Your task to perform on an android device: turn pop-ups off in chrome Image 0: 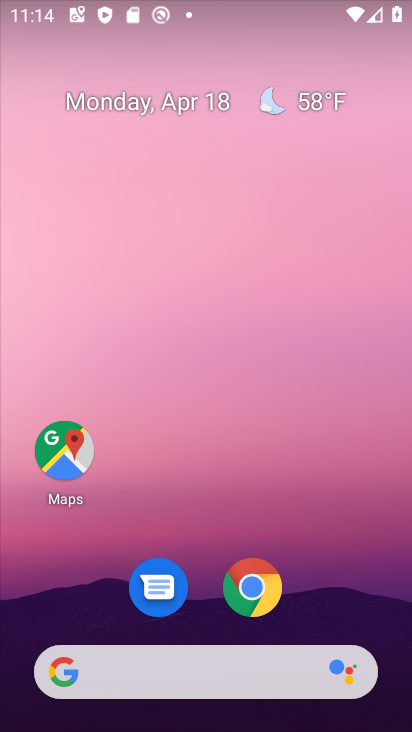
Step 0: click (259, 596)
Your task to perform on an android device: turn pop-ups off in chrome Image 1: 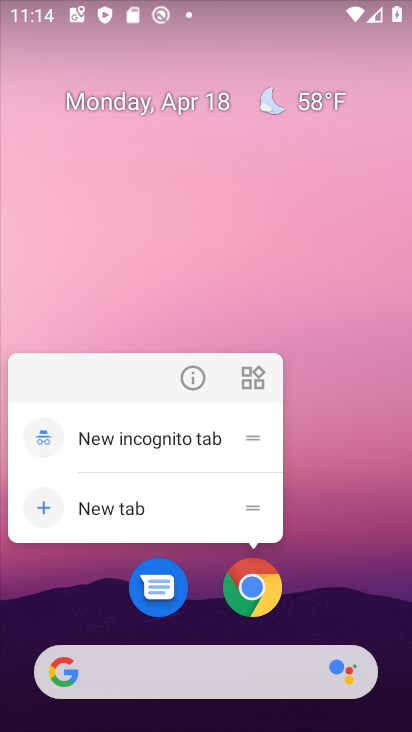
Step 1: click (271, 601)
Your task to perform on an android device: turn pop-ups off in chrome Image 2: 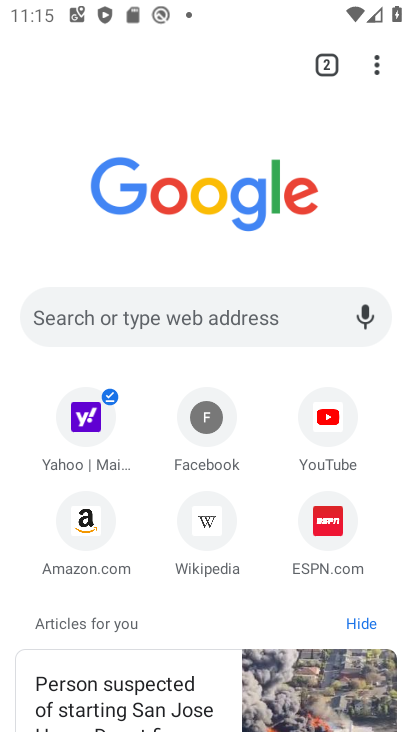
Step 2: click (380, 71)
Your task to perform on an android device: turn pop-ups off in chrome Image 3: 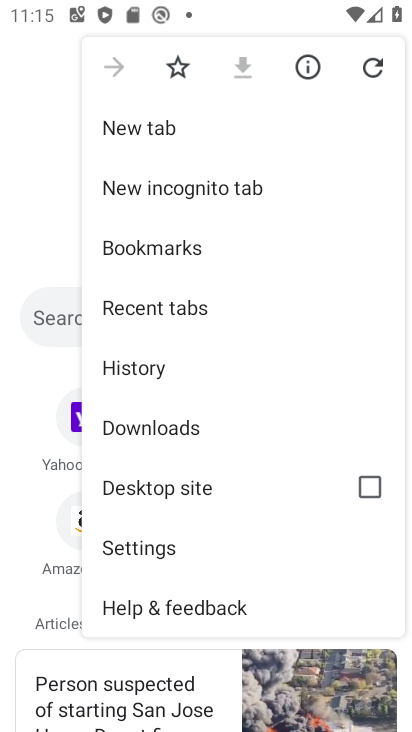
Step 3: click (159, 553)
Your task to perform on an android device: turn pop-ups off in chrome Image 4: 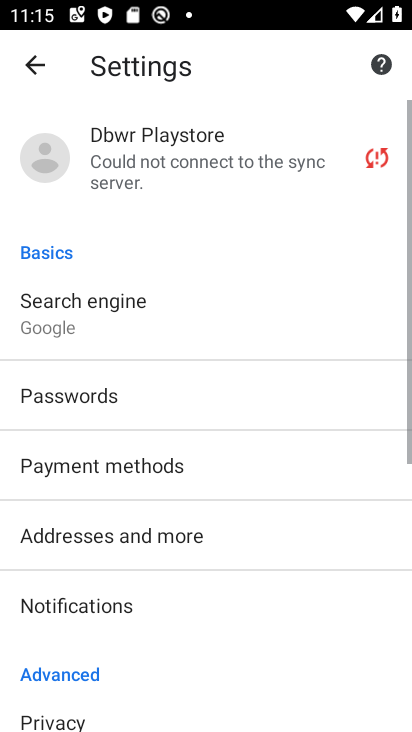
Step 4: drag from (179, 643) to (289, 346)
Your task to perform on an android device: turn pop-ups off in chrome Image 5: 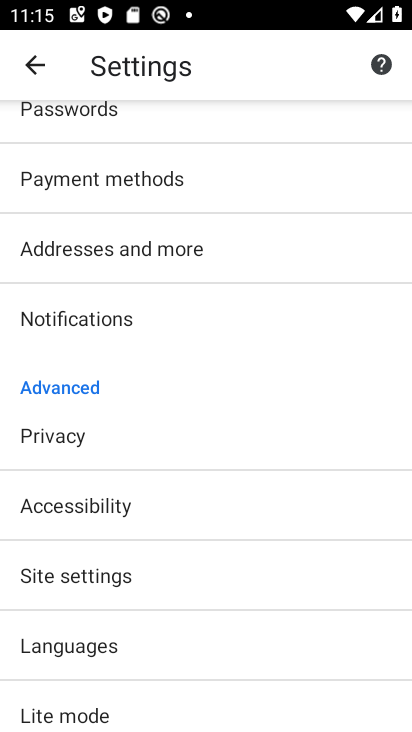
Step 5: click (172, 575)
Your task to perform on an android device: turn pop-ups off in chrome Image 6: 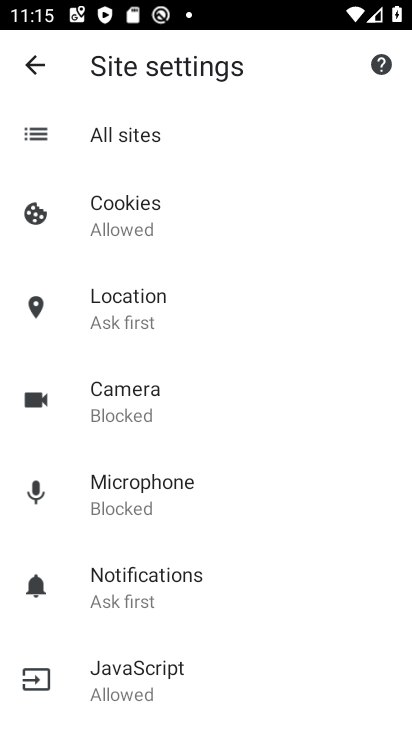
Step 6: drag from (167, 654) to (248, 425)
Your task to perform on an android device: turn pop-ups off in chrome Image 7: 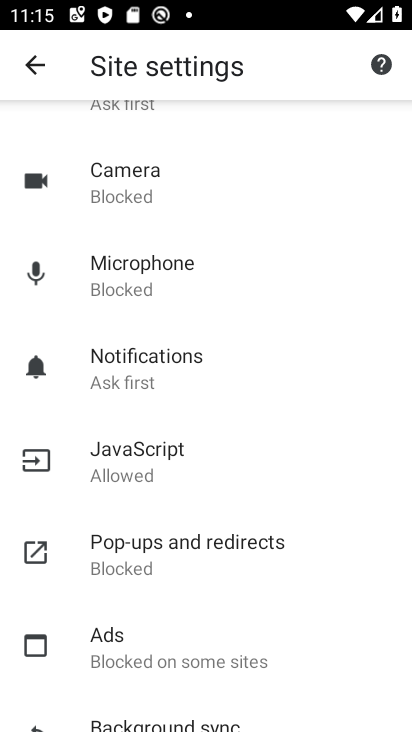
Step 7: click (201, 555)
Your task to perform on an android device: turn pop-ups off in chrome Image 8: 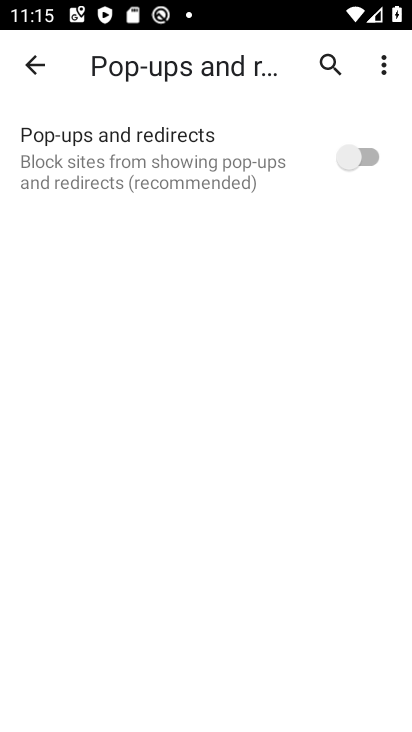
Step 8: task complete